Your task to perform on an android device: check android version Image 0: 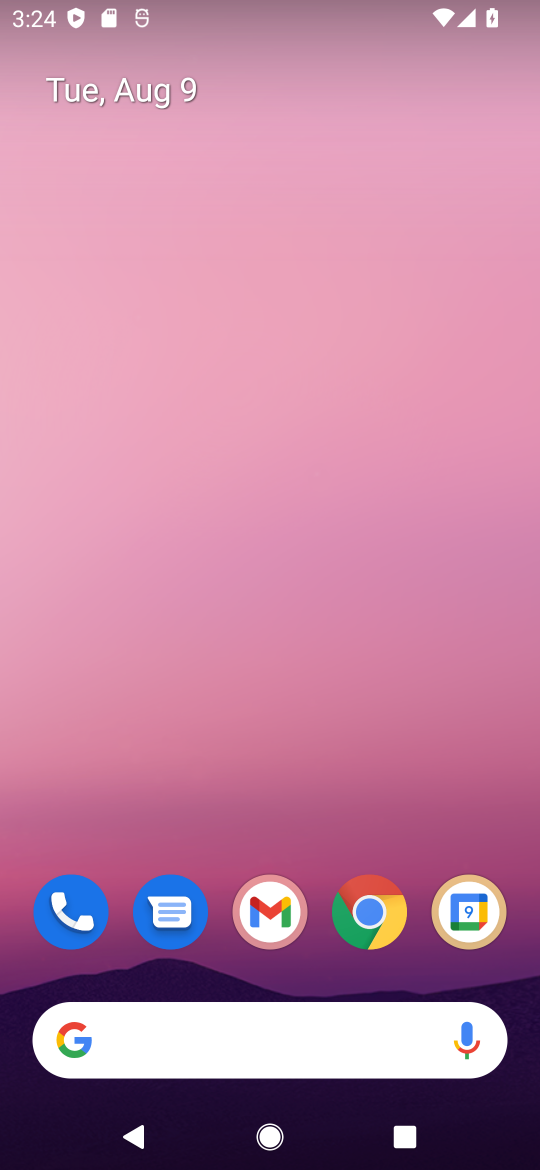
Step 0: drag from (257, 788) to (269, 29)
Your task to perform on an android device: check android version Image 1: 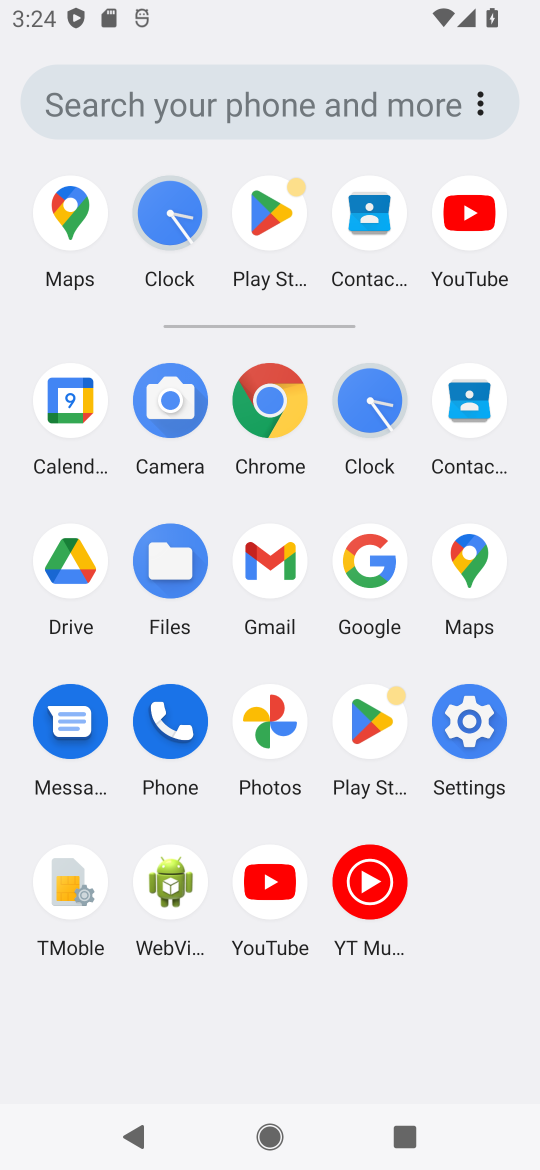
Step 1: click (464, 726)
Your task to perform on an android device: check android version Image 2: 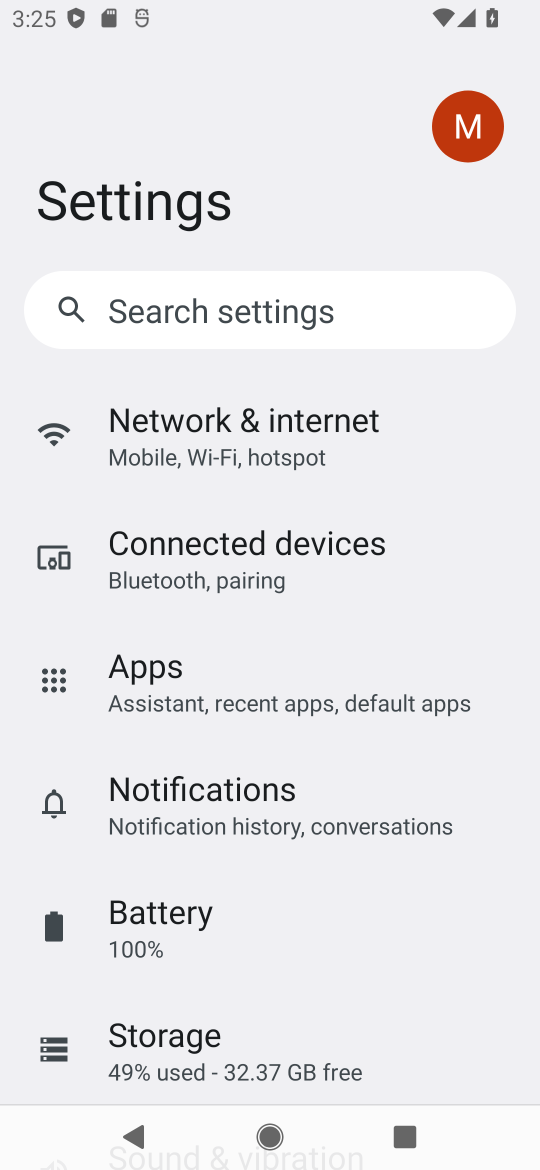
Step 2: task complete